Your task to perform on an android device: turn off wifi Image 0: 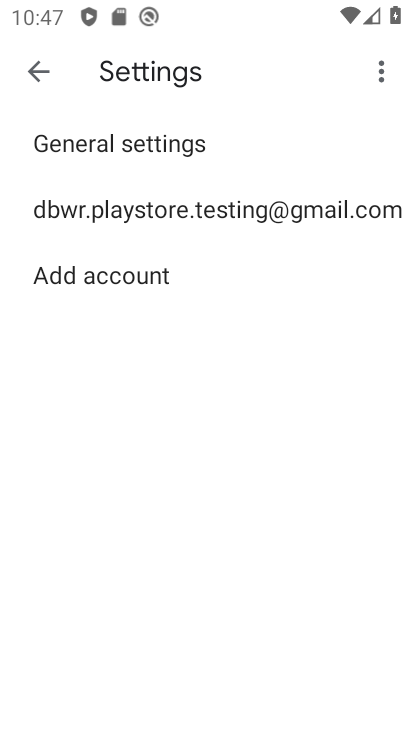
Step 0: task complete